Your task to perform on an android device: Check the new Jordans on Nike. Image 0: 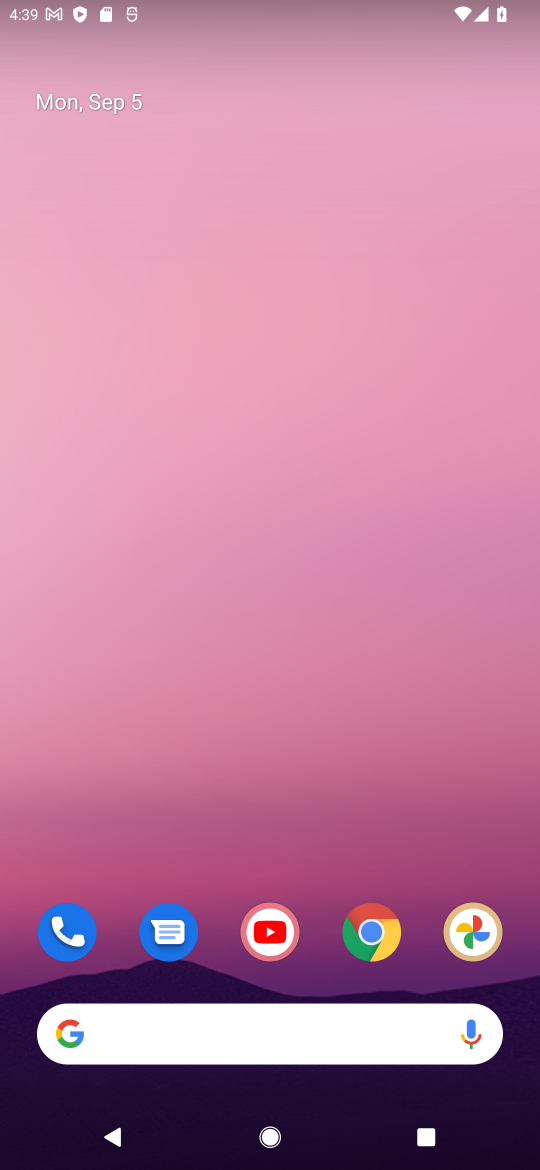
Step 0: drag from (298, 1005) to (240, 48)
Your task to perform on an android device: Check the new Jordans on Nike. Image 1: 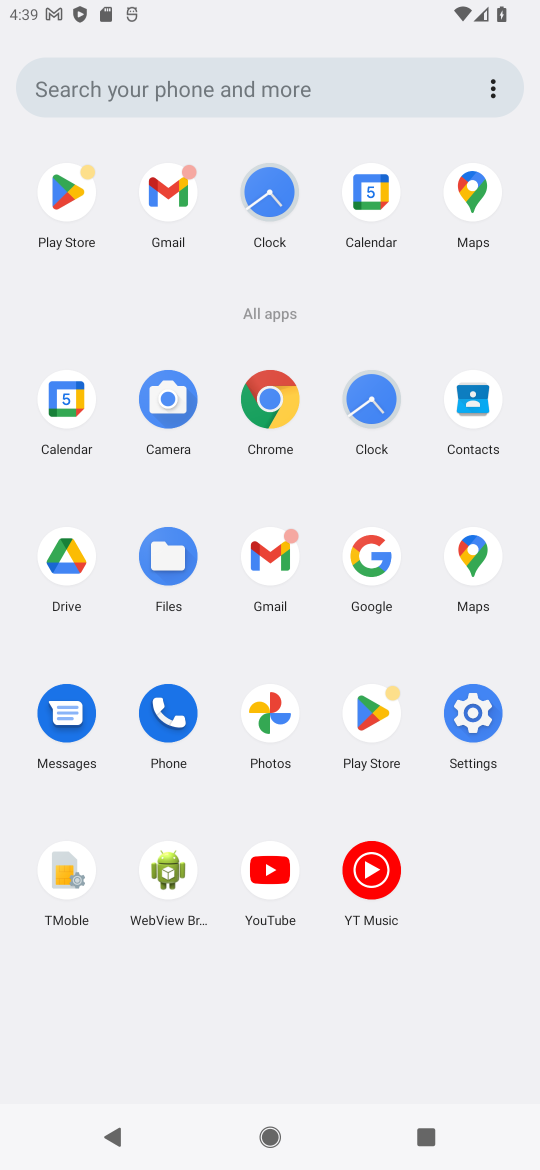
Step 1: click (266, 399)
Your task to perform on an android device: Check the new Jordans on Nike. Image 2: 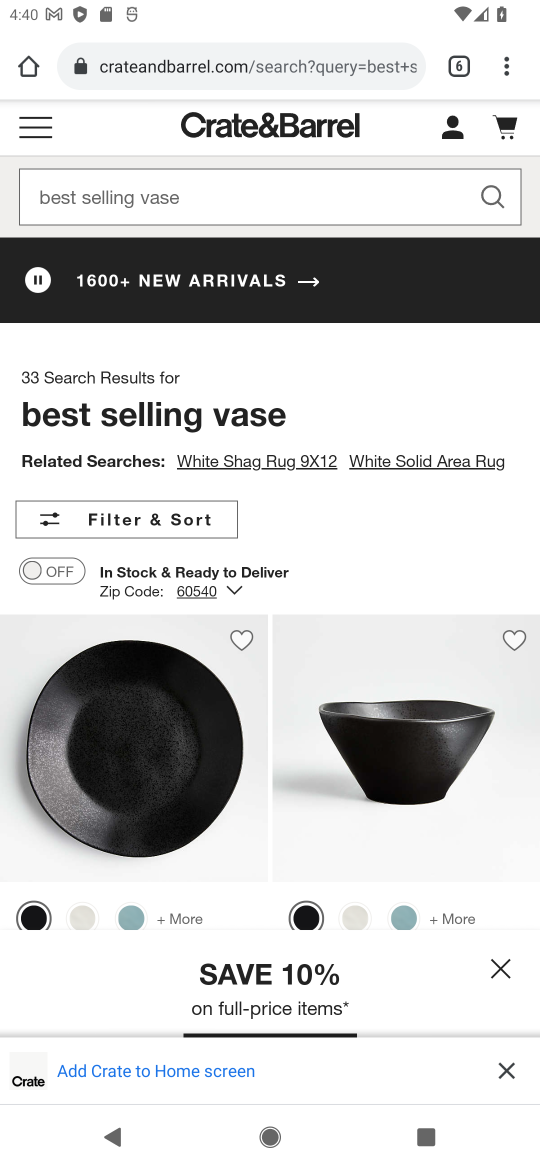
Step 2: click (503, 72)
Your task to perform on an android device: Check the new Jordans on Nike. Image 3: 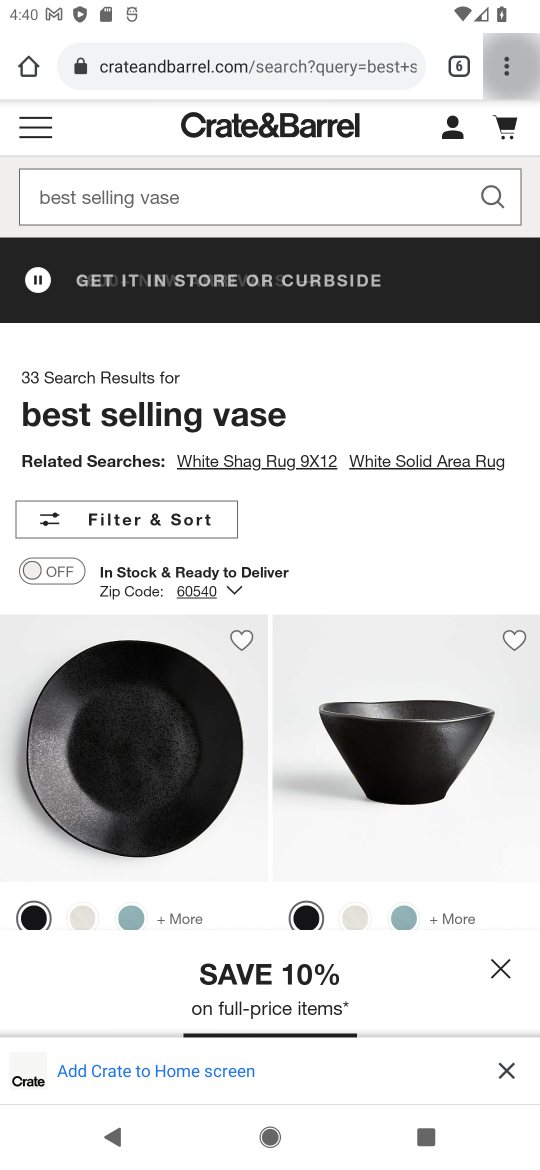
Step 3: drag from (503, 72) to (284, 147)
Your task to perform on an android device: Check the new Jordans on Nike. Image 4: 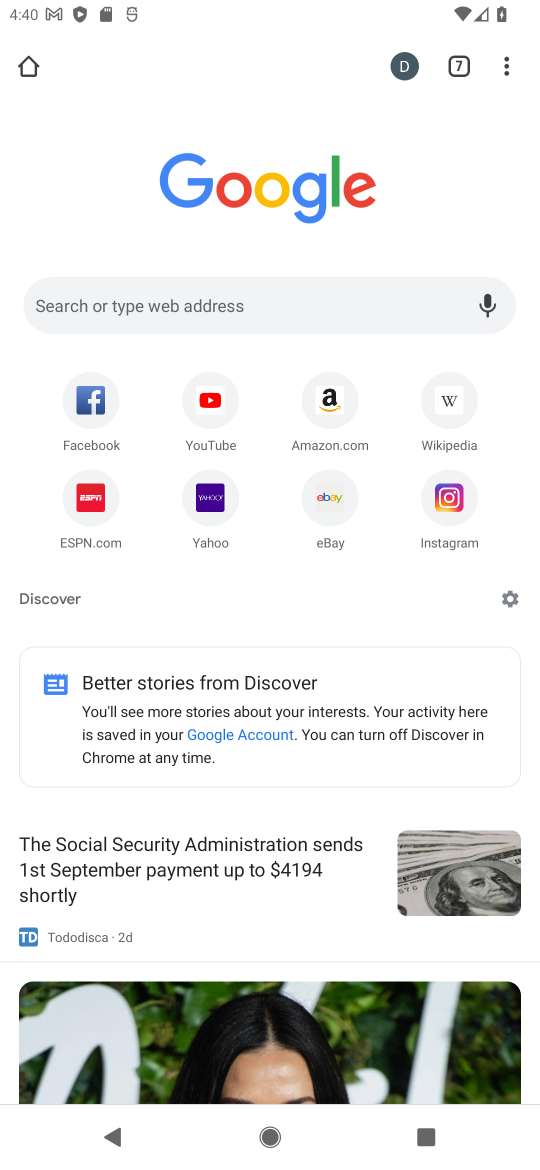
Step 4: click (270, 306)
Your task to perform on an android device: Check the new Jordans on Nike. Image 5: 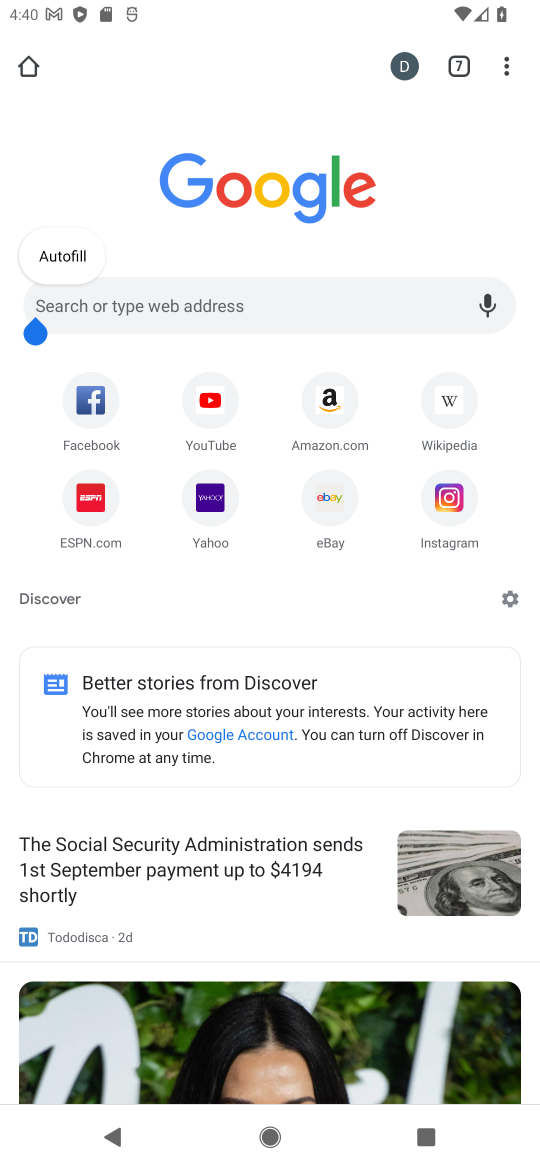
Step 5: type "Nike"
Your task to perform on an android device: Check the new Jordans on Nike. Image 6: 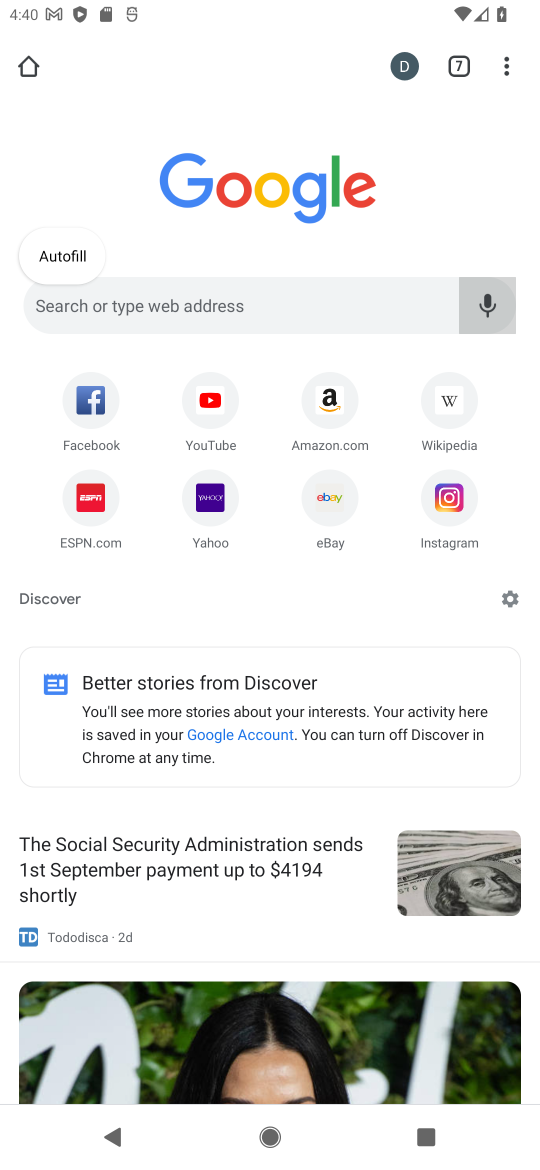
Step 6: click (236, 300)
Your task to perform on an android device: Check the new Jordans on Nike. Image 7: 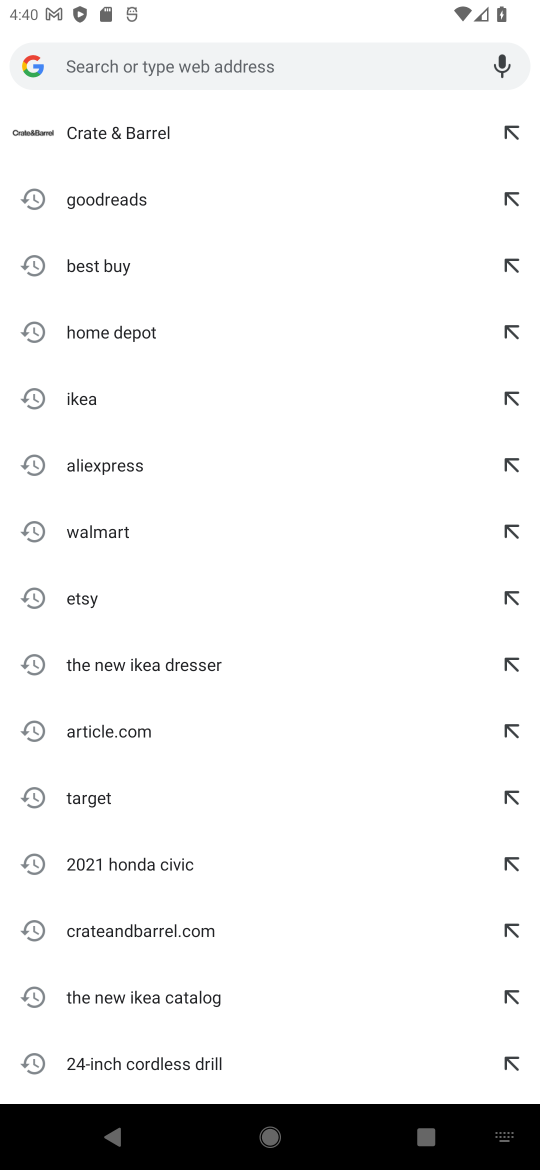
Step 7: type "Nike"
Your task to perform on an android device: Check the new Jordans on Nike. Image 8: 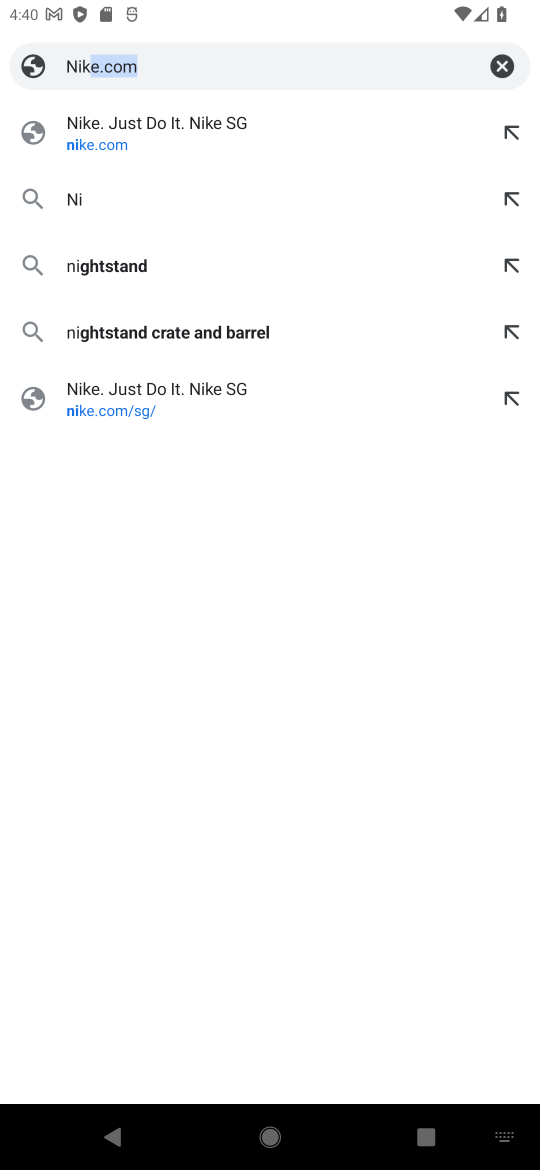
Step 8: type ""
Your task to perform on an android device: Check the new Jordans on Nike. Image 9: 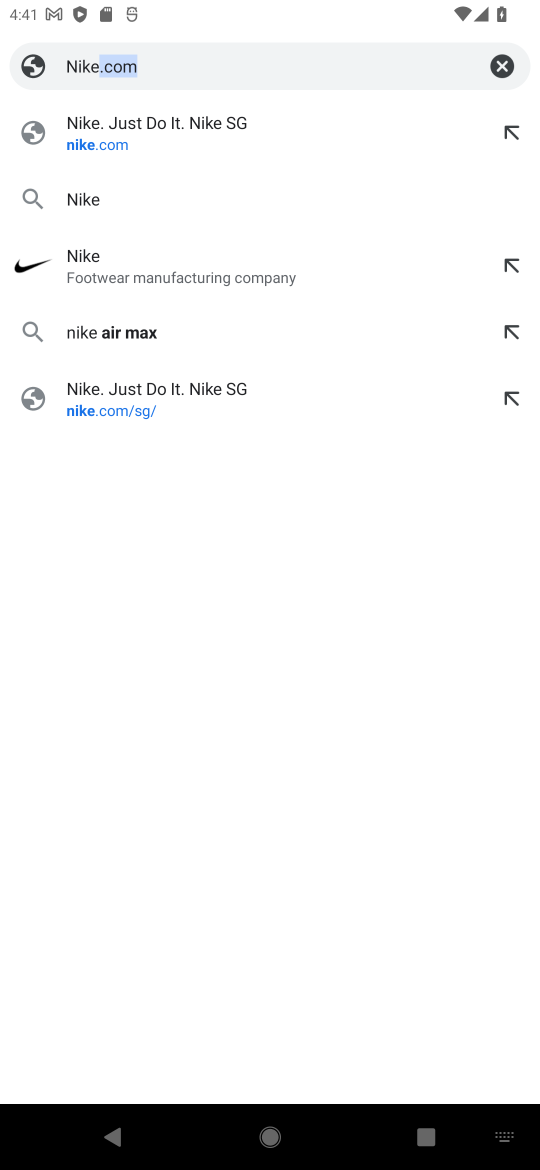
Step 9: click (86, 251)
Your task to perform on an android device: Check the new Jordans on Nike. Image 10: 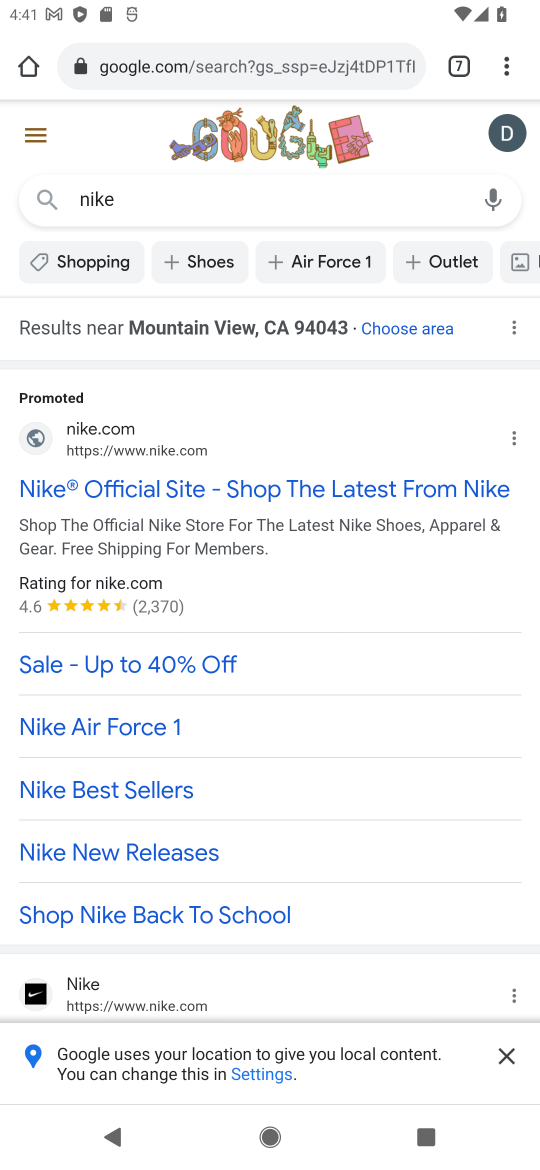
Step 10: drag from (170, 961) to (150, 556)
Your task to perform on an android device: Check the new Jordans on Nike. Image 11: 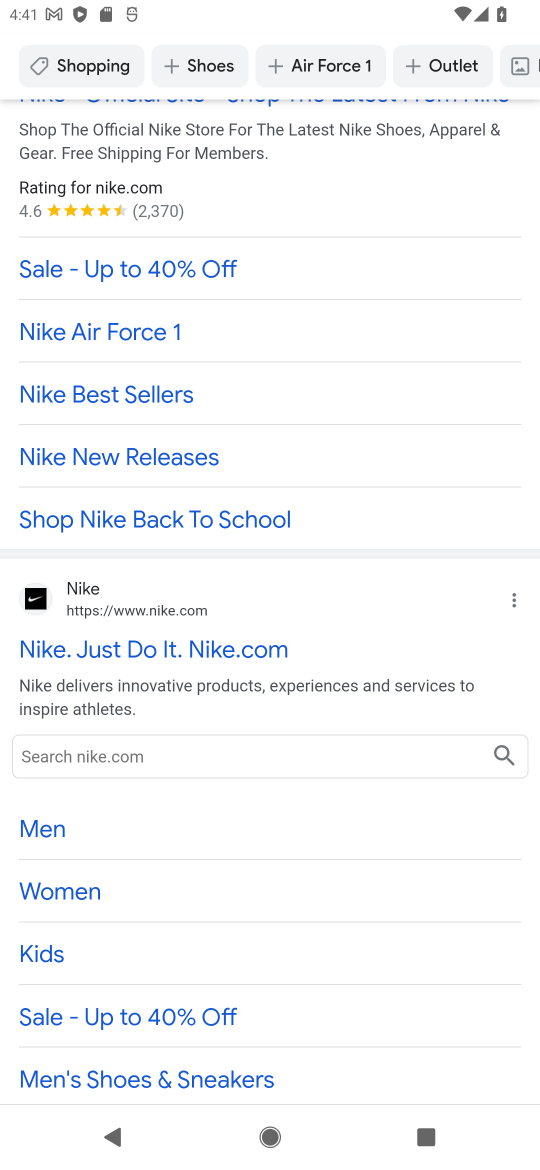
Step 11: drag from (155, 180) to (143, 337)
Your task to perform on an android device: Check the new Jordans on Nike. Image 12: 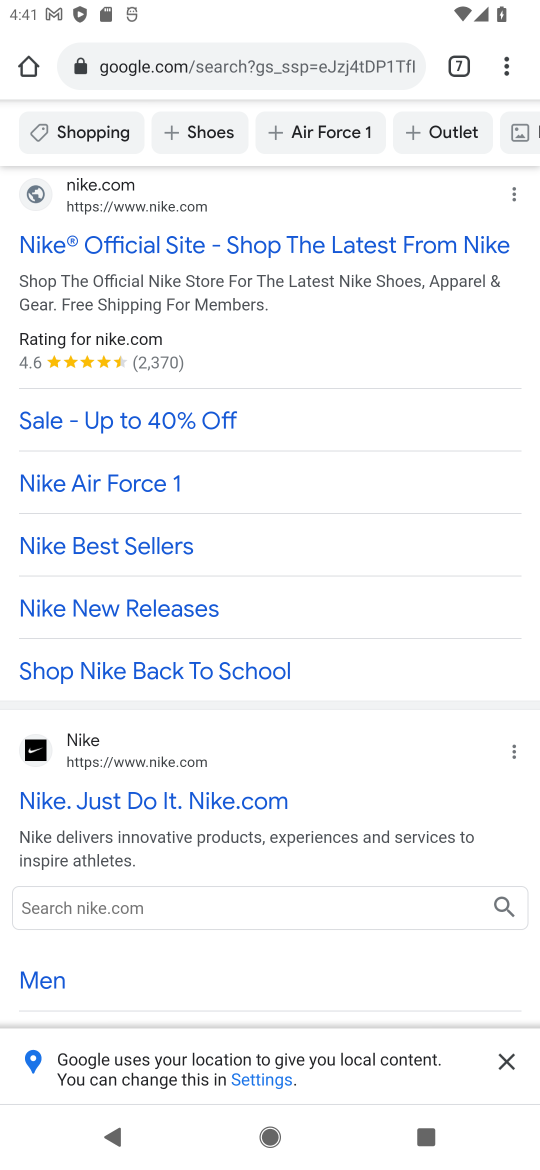
Step 12: click (152, 793)
Your task to perform on an android device: Check the new Jordans on Nike. Image 13: 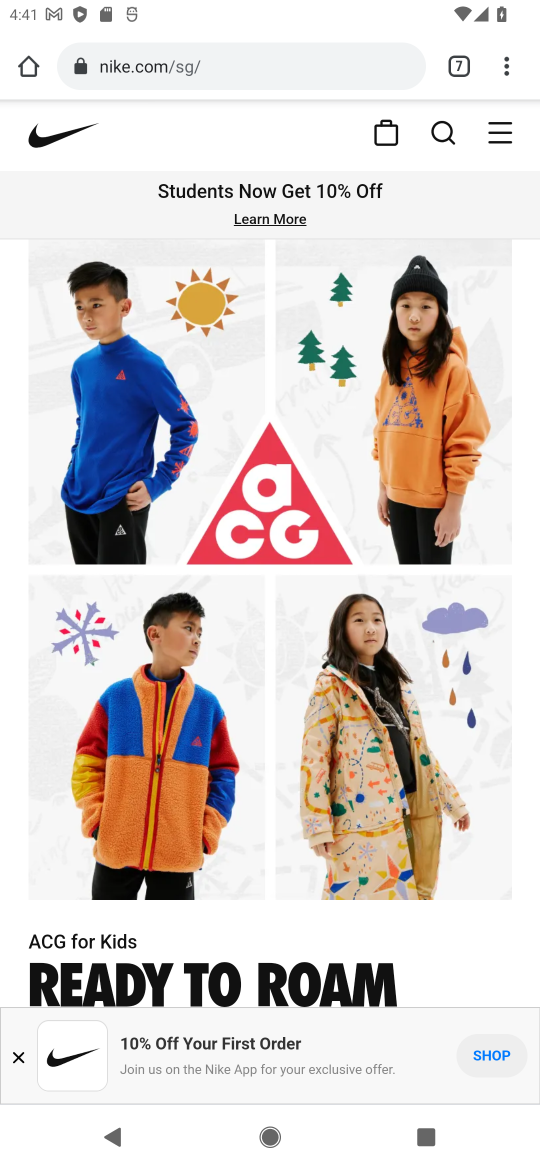
Step 13: click (436, 128)
Your task to perform on an android device: Check the new Jordans on Nike. Image 14: 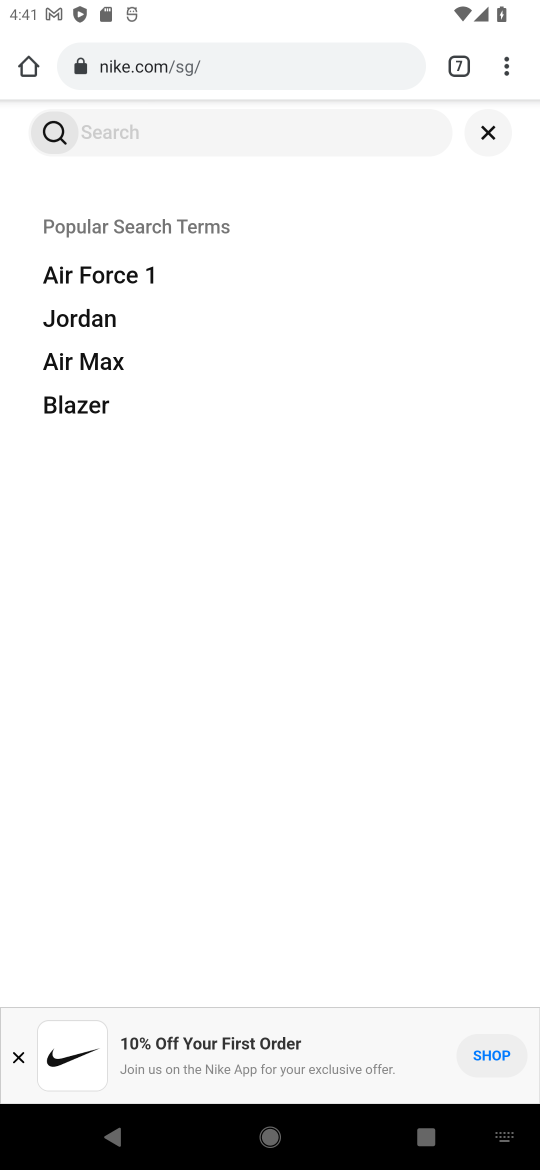
Step 14: type "Jordans"
Your task to perform on an android device: Check the new Jordans on Nike. Image 15: 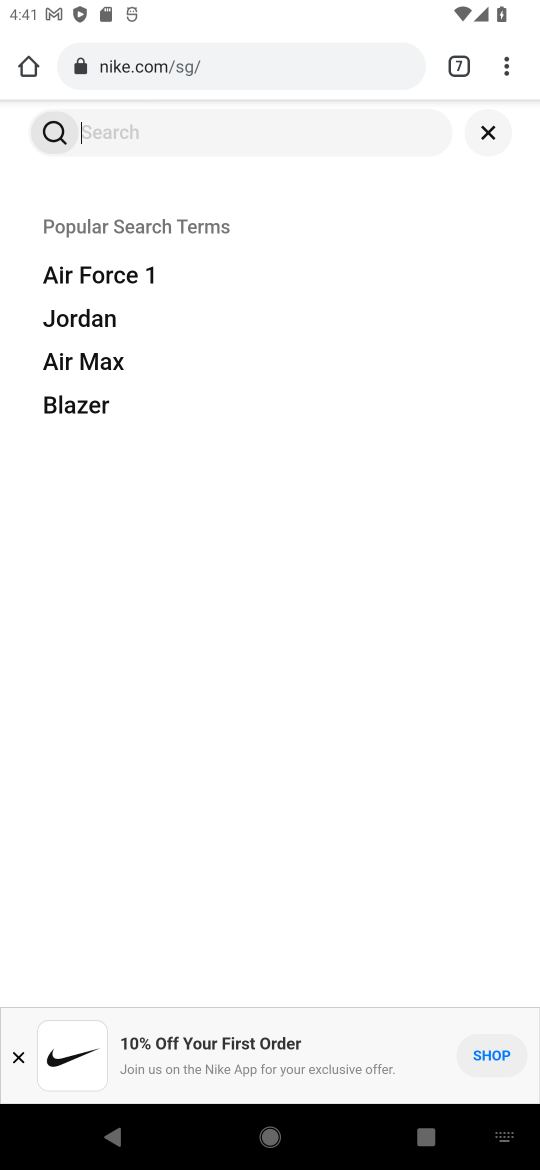
Step 15: type ""
Your task to perform on an android device: Check the new Jordans on Nike. Image 16: 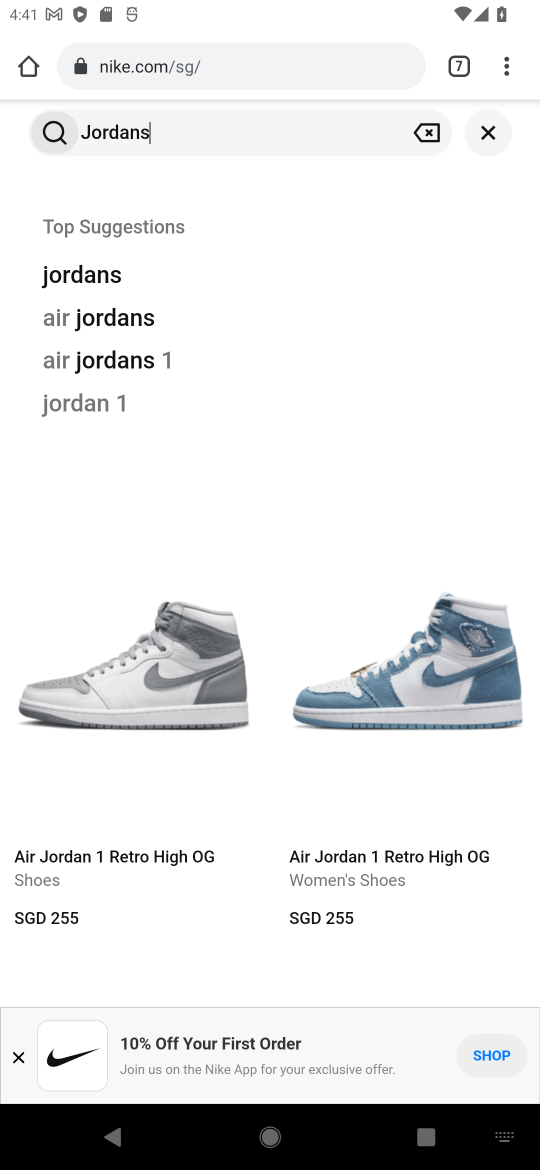
Step 16: task complete